Your task to perform on an android device: clear history in the chrome app Image 0: 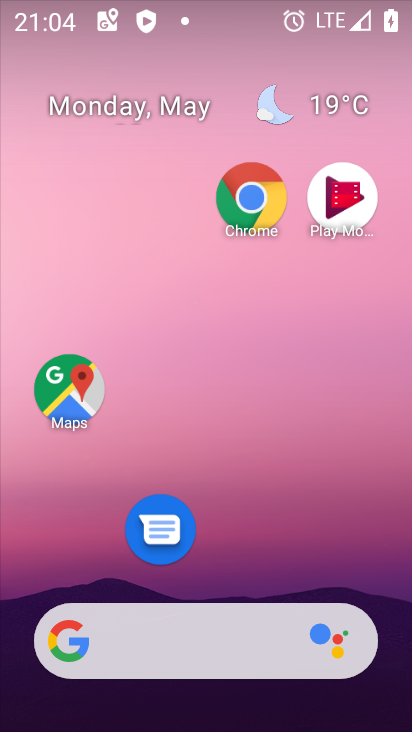
Step 0: click (249, 200)
Your task to perform on an android device: clear history in the chrome app Image 1: 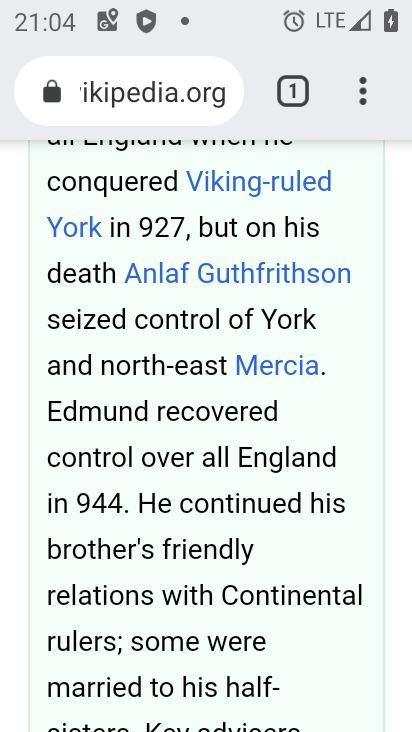
Step 1: click (366, 96)
Your task to perform on an android device: clear history in the chrome app Image 2: 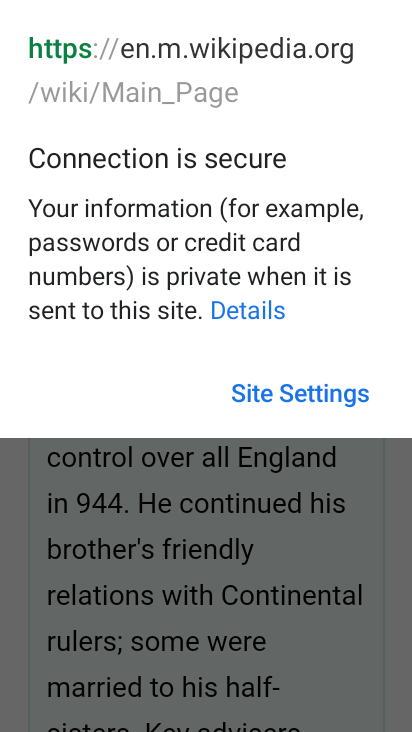
Step 2: click (273, 497)
Your task to perform on an android device: clear history in the chrome app Image 3: 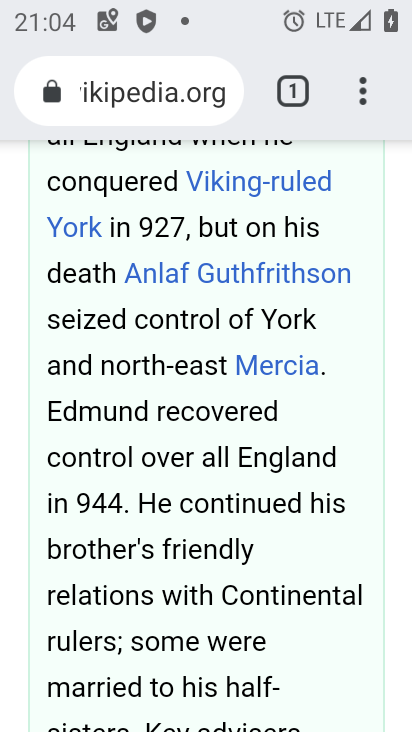
Step 3: click (369, 98)
Your task to perform on an android device: clear history in the chrome app Image 4: 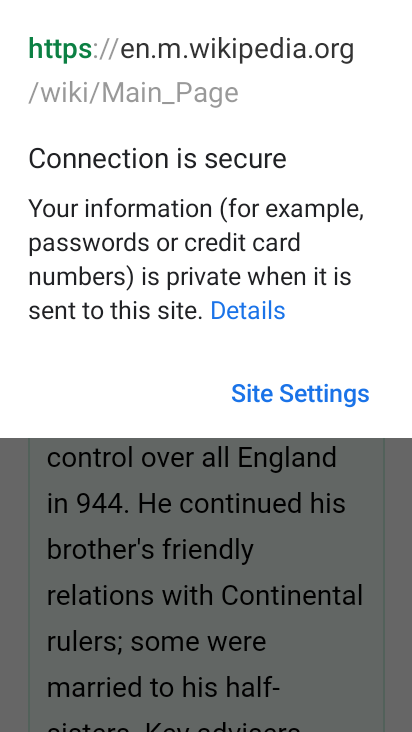
Step 4: click (294, 535)
Your task to perform on an android device: clear history in the chrome app Image 5: 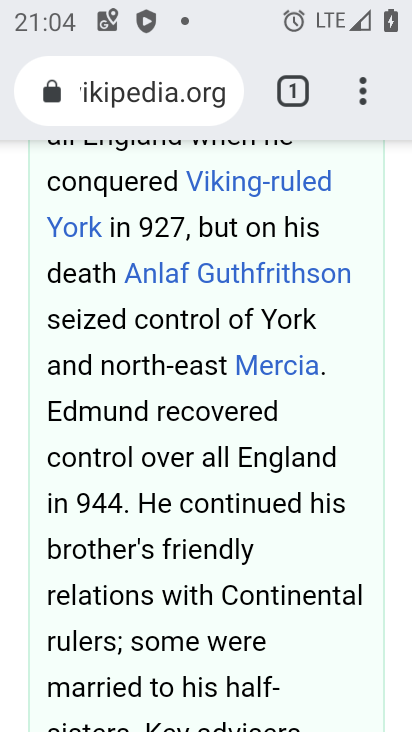
Step 5: click (363, 93)
Your task to perform on an android device: clear history in the chrome app Image 6: 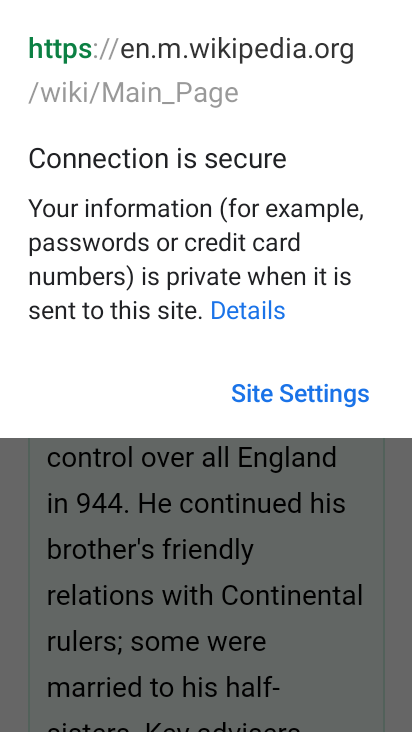
Step 6: click (281, 475)
Your task to perform on an android device: clear history in the chrome app Image 7: 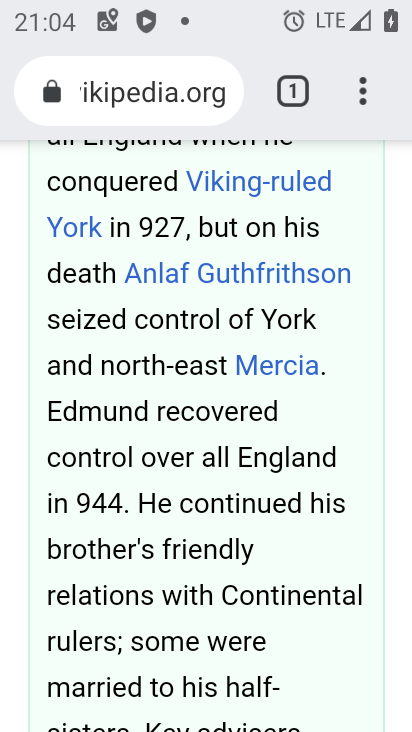
Step 7: click (363, 82)
Your task to perform on an android device: clear history in the chrome app Image 8: 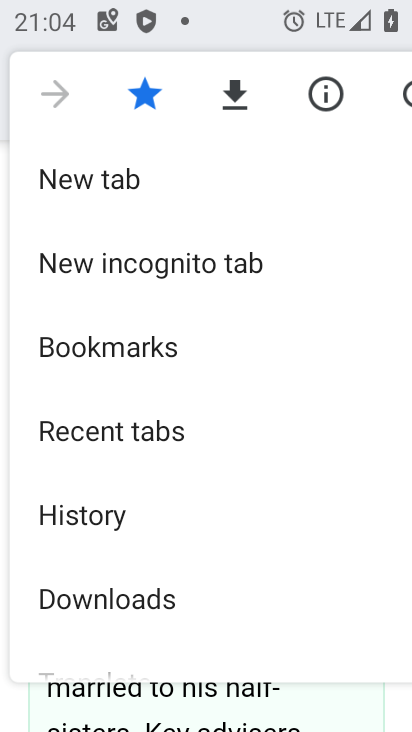
Step 8: click (94, 526)
Your task to perform on an android device: clear history in the chrome app Image 9: 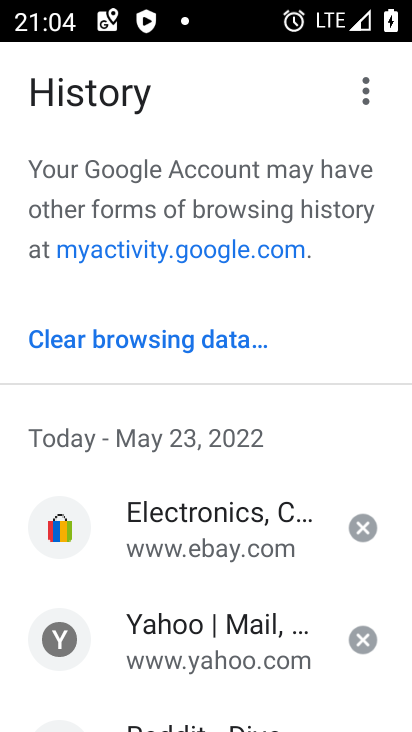
Step 9: click (114, 339)
Your task to perform on an android device: clear history in the chrome app Image 10: 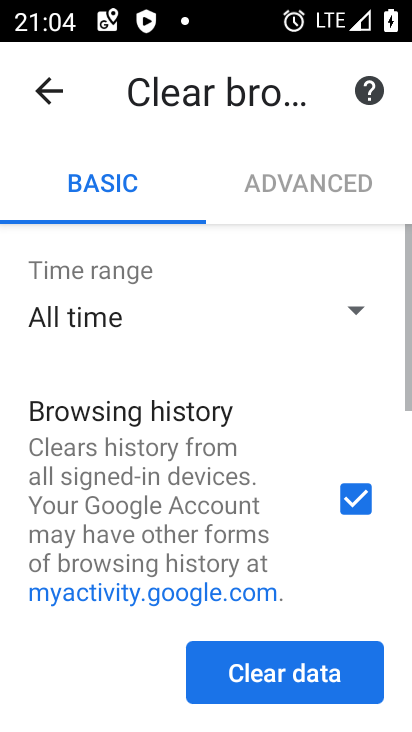
Step 10: drag from (199, 493) to (229, 370)
Your task to perform on an android device: clear history in the chrome app Image 11: 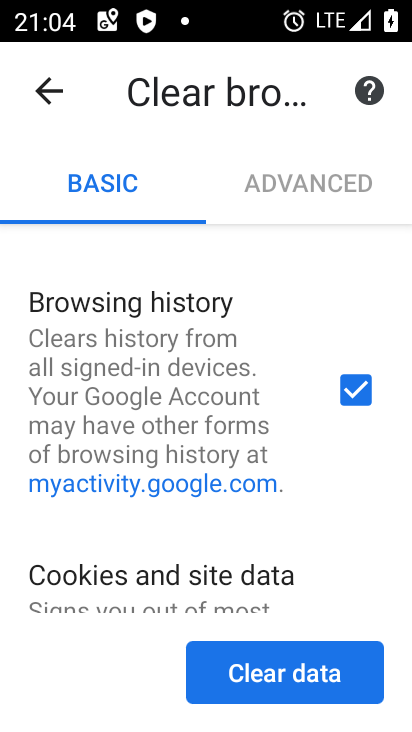
Step 11: drag from (260, 561) to (262, 400)
Your task to perform on an android device: clear history in the chrome app Image 12: 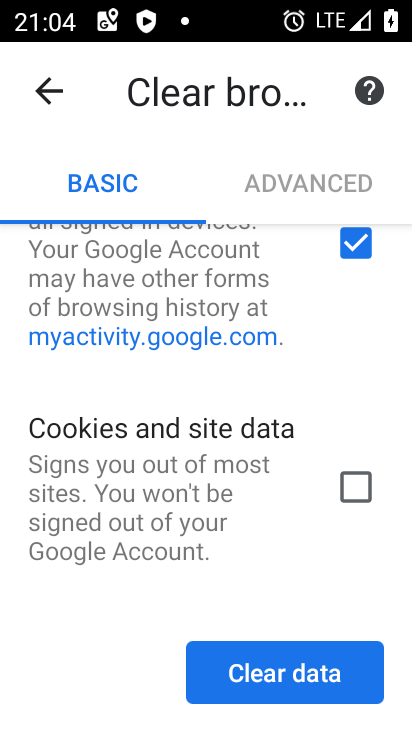
Step 12: click (359, 482)
Your task to perform on an android device: clear history in the chrome app Image 13: 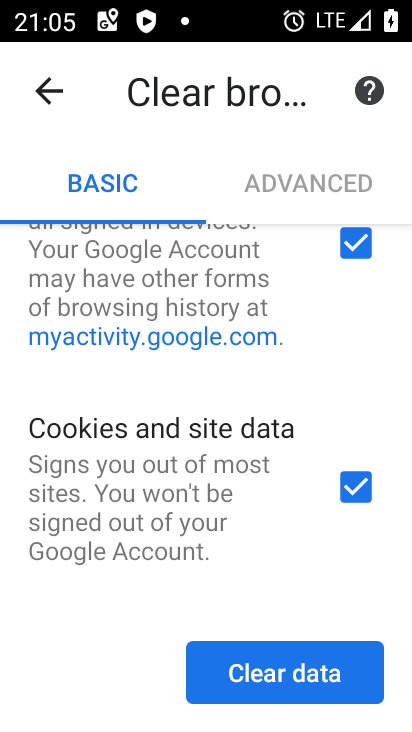
Step 13: drag from (207, 628) to (186, 728)
Your task to perform on an android device: clear history in the chrome app Image 14: 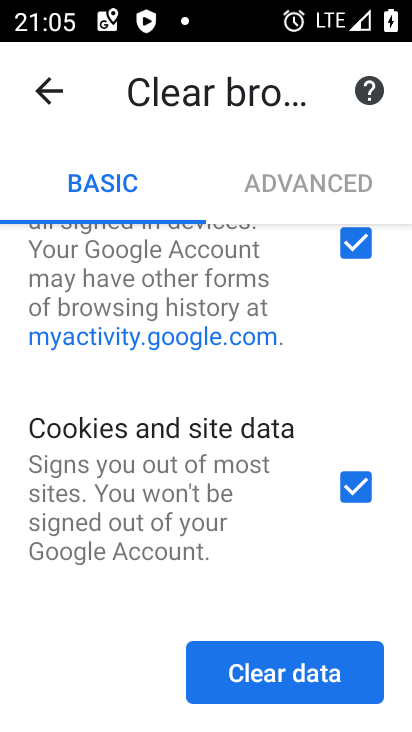
Step 14: drag from (266, 290) to (213, 661)
Your task to perform on an android device: clear history in the chrome app Image 15: 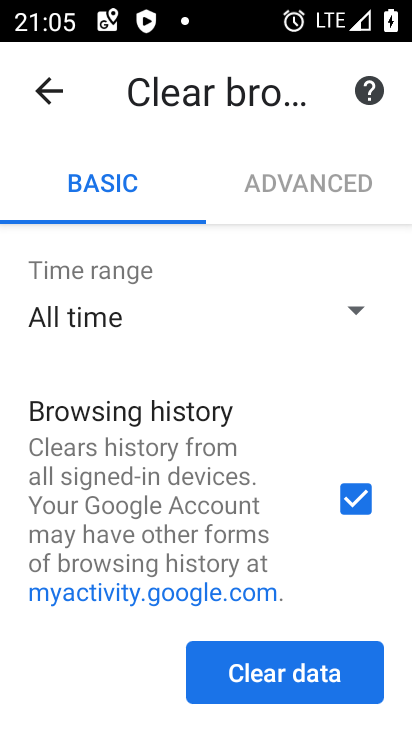
Step 15: drag from (217, 373) to (219, 664)
Your task to perform on an android device: clear history in the chrome app Image 16: 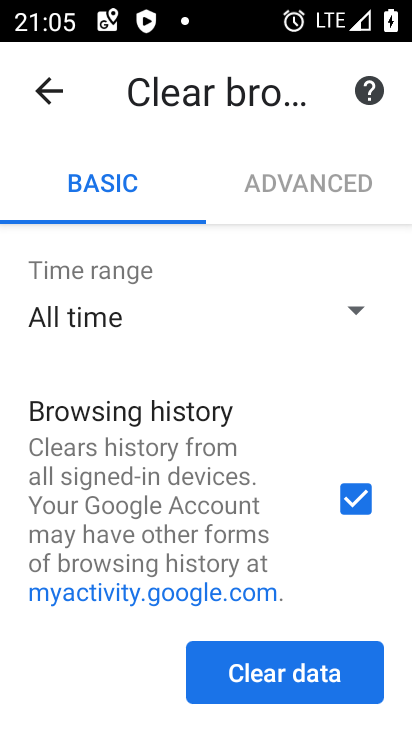
Step 16: drag from (194, 556) to (218, 423)
Your task to perform on an android device: clear history in the chrome app Image 17: 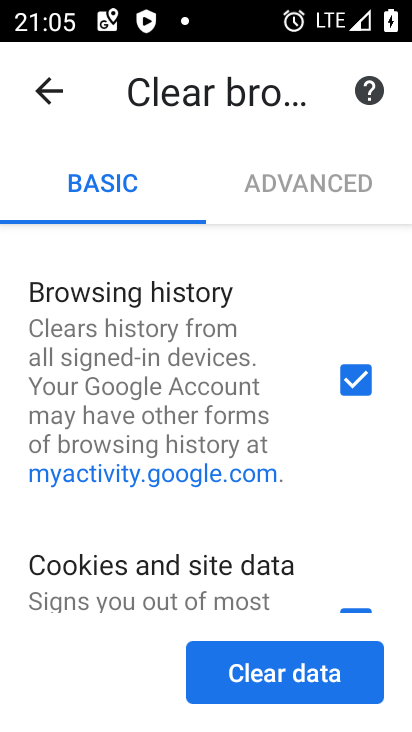
Step 17: drag from (243, 567) to (288, 374)
Your task to perform on an android device: clear history in the chrome app Image 18: 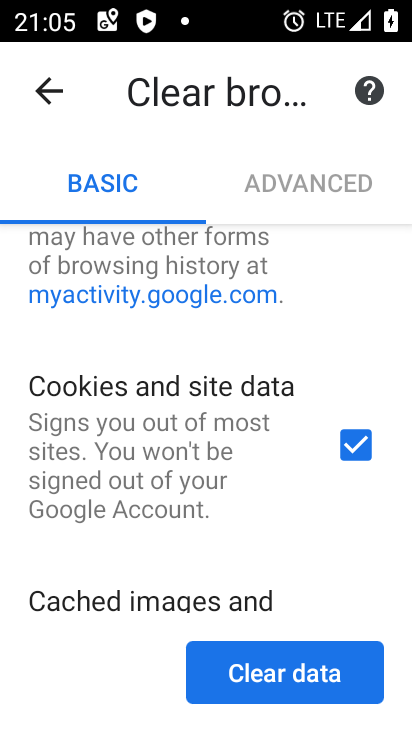
Step 18: drag from (256, 567) to (276, 335)
Your task to perform on an android device: clear history in the chrome app Image 19: 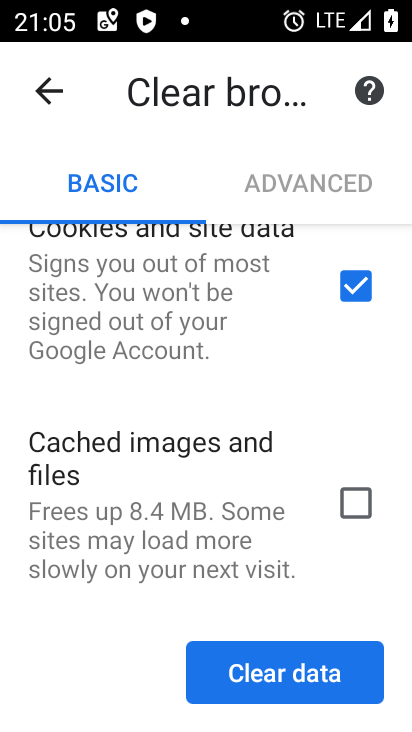
Step 19: click (346, 511)
Your task to perform on an android device: clear history in the chrome app Image 20: 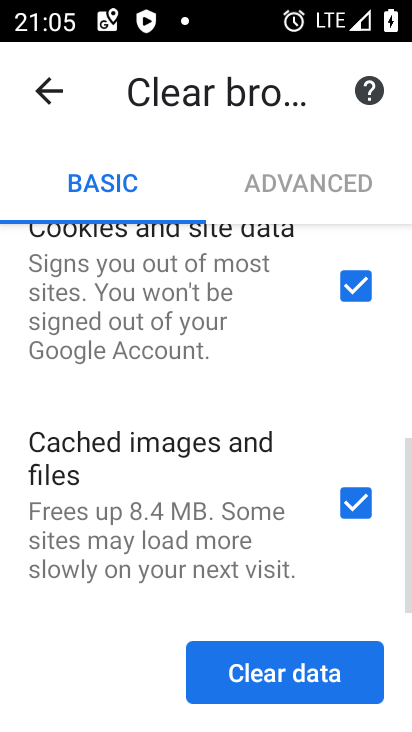
Step 20: click (283, 684)
Your task to perform on an android device: clear history in the chrome app Image 21: 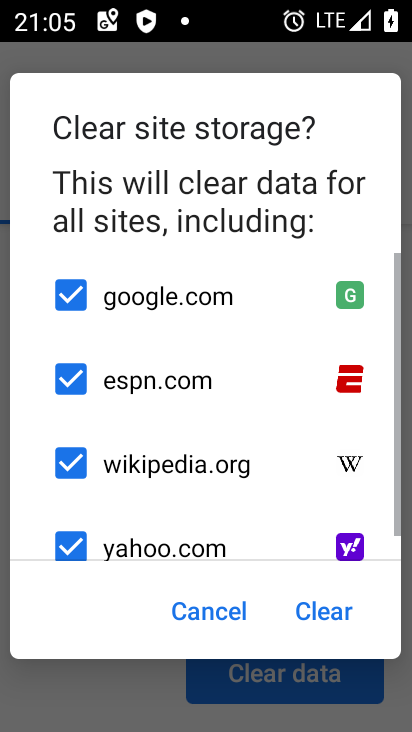
Step 21: click (326, 607)
Your task to perform on an android device: clear history in the chrome app Image 22: 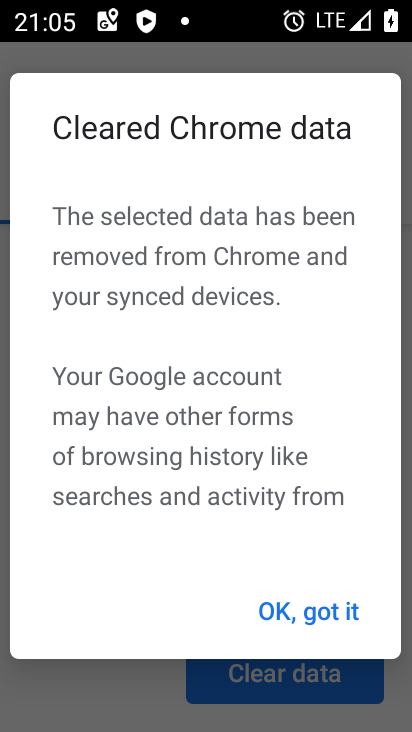
Step 22: click (322, 620)
Your task to perform on an android device: clear history in the chrome app Image 23: 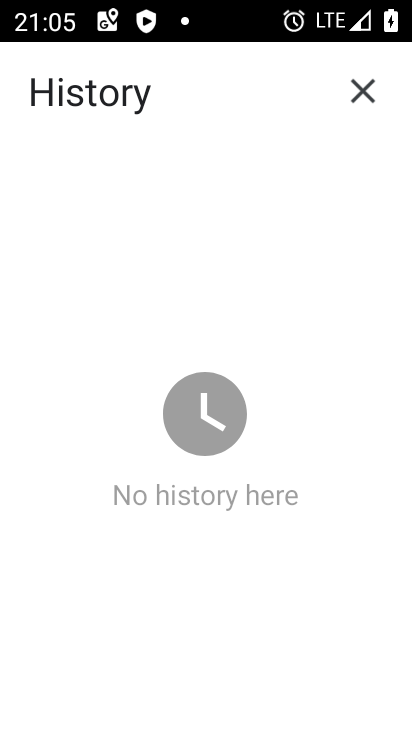
Step 23: task complete